Your task to perform on an android device: Open the Play Movies app and select the watchlist tab. Image 0: 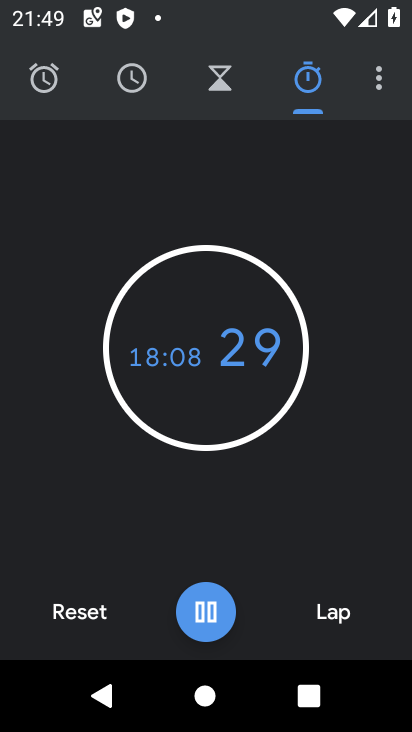
Step 0: drag from (369, 92) to (405, 303)
Your task to perform on an android device: Open the Play Movies app and select the watchlist tab. Image 1: 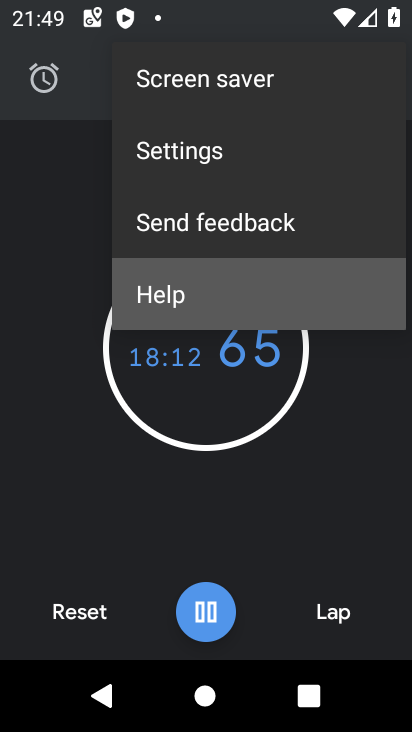
Step 1: press home button
Your task to perform on an android device: Open the Play Movies app and select the watchlist tab. Image 2: 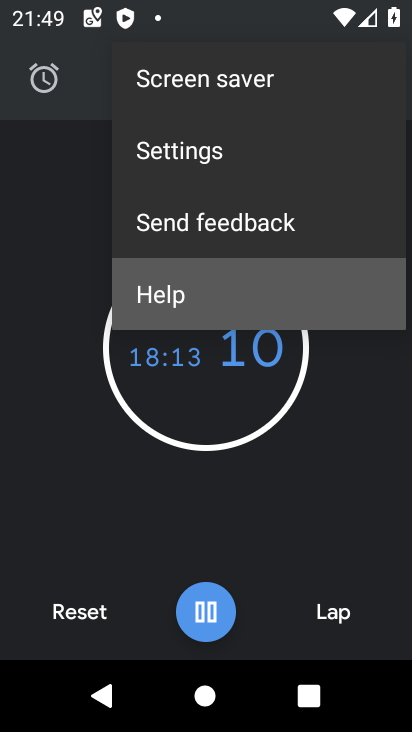
Step 2: press home button
Your task to perform on an android device: Open the Play Movies app and select the watchlist tab. Image 3: 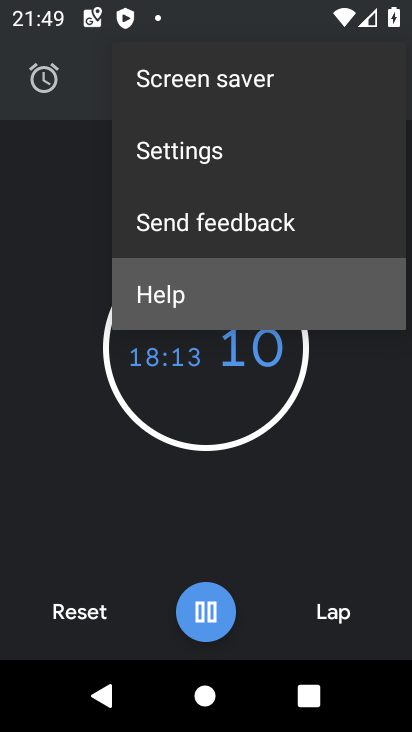
Step 3: click (385, 395)
Your task to perform on an android device: Open the Play Movies app and select the watchlist tab. Image 4: 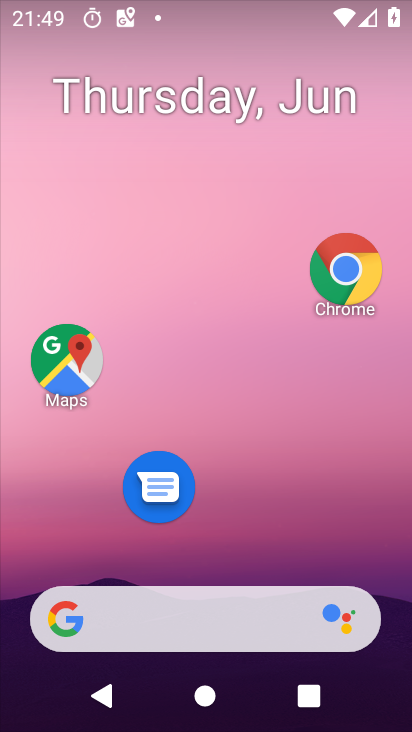
Step 4: drag from (238, 337) to (214, 6)
Your task to perform on an android device: Open the Play Movies app and select the watchlist tab. Image 5: 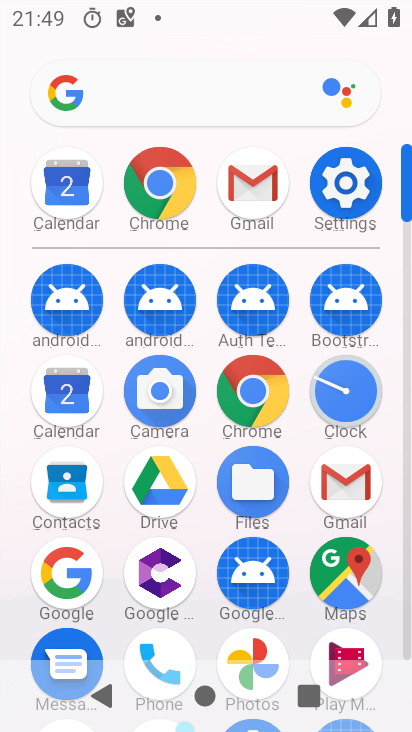
Step 5: click (337, 647)
Your task to perform on an android device: Open the Play Movies app and select the watchlist tab. Image 6: 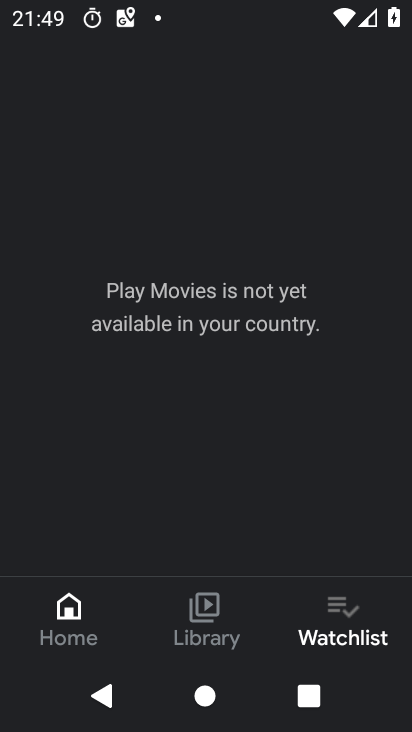
Step 6: drag from (246, 451) to (313, 31)
Your task to perform on an android device: Open the Play Movies app and select the watchlist tab. Image 7: 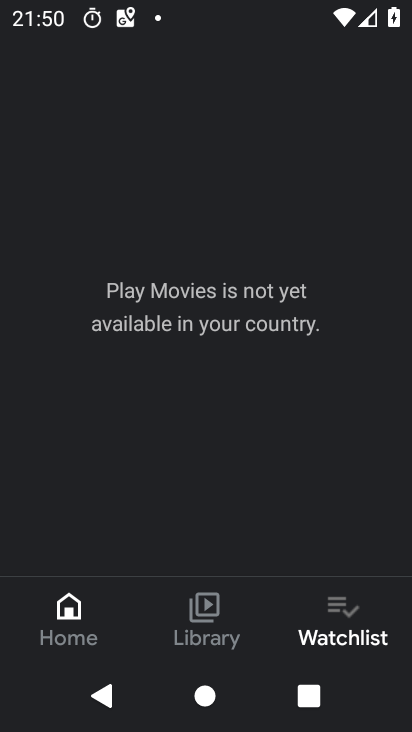
Step 7: click (349, 608)
Your task to perform on an android device: Open the Play Movies app and select the watchlist tab. Image 8: 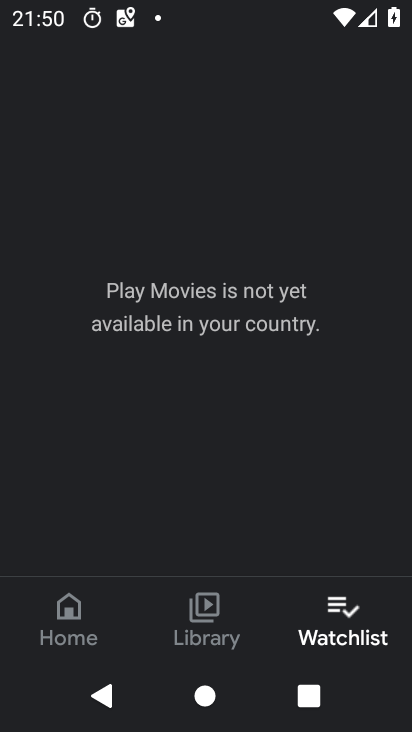
Step 8: task complete